Your task to perform on an android device: turn on the 24-hour format for clock Image 0: 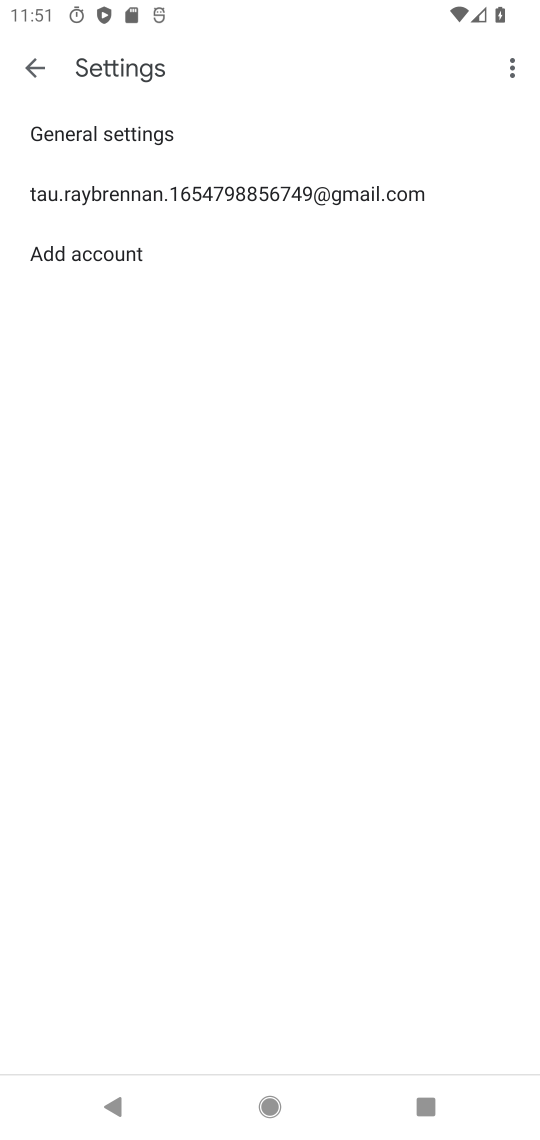
Step 0: press home button
Your task to perform on an android device: turn on the 24-hour format for clock Image 1: 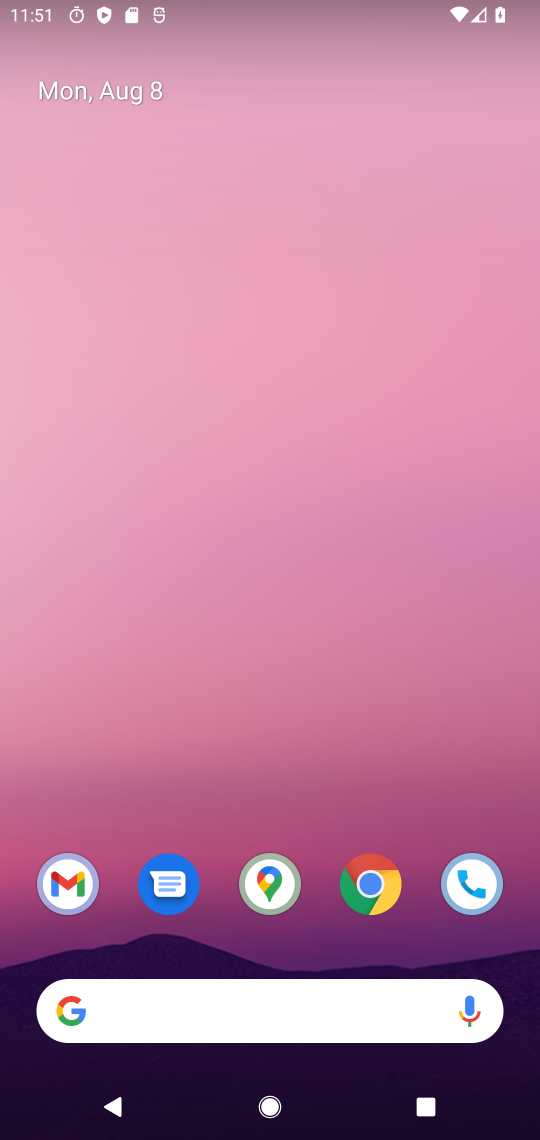
Step 1: drag from (258, 807) to (290, 191)
Your task to perform on an android device: turn on the 24-hour format for clock Image 2: 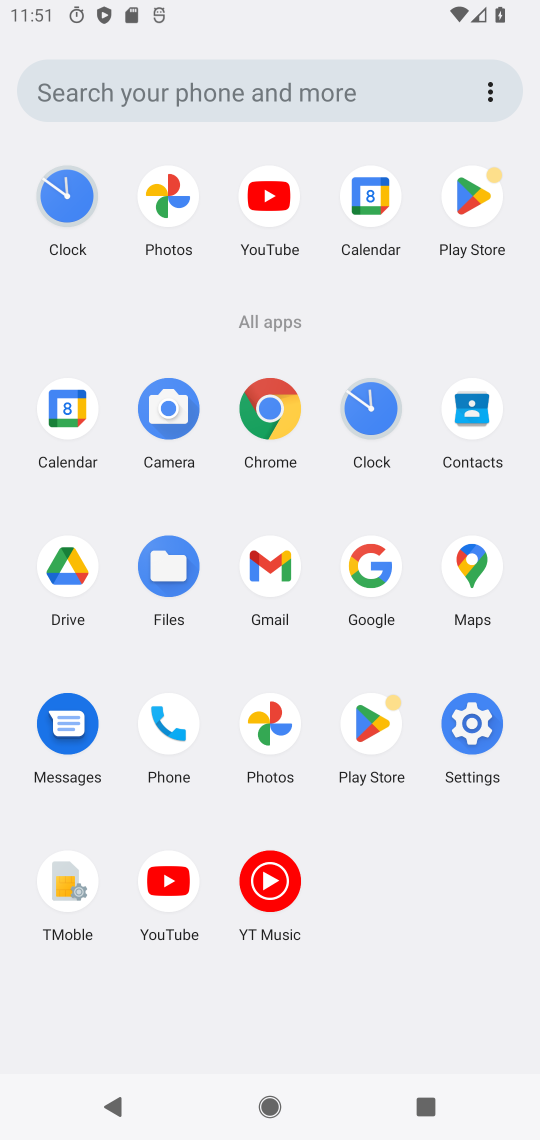
Step 2: click (376, 432)
Your task to perform on an android device: turn on the 24-hour format for clock Image 3: 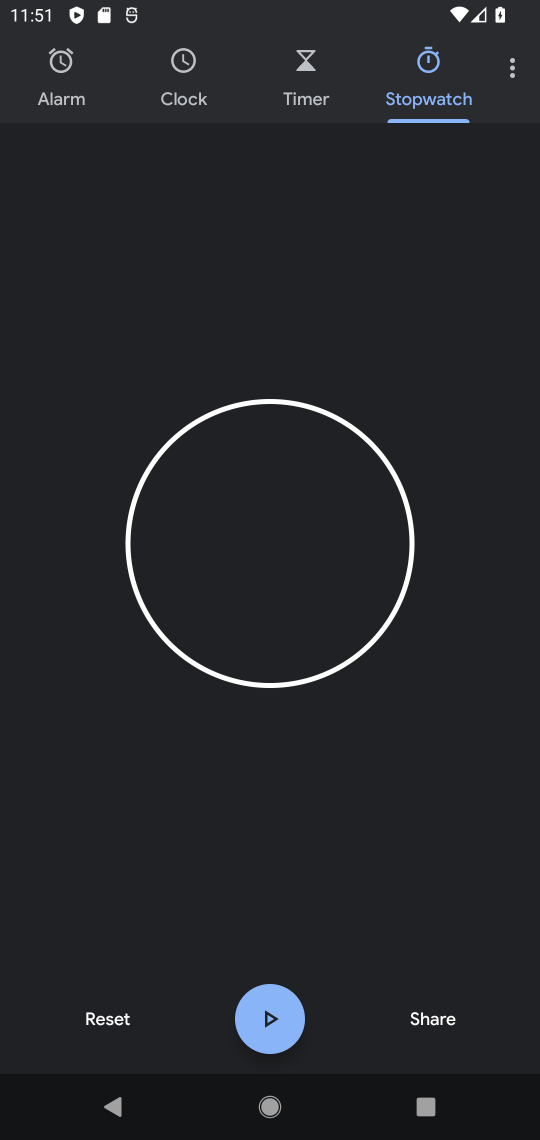
Step 3: click (509, 72)
Your task to perform on an android device: turn on the 24-hour format for clock Image 4: 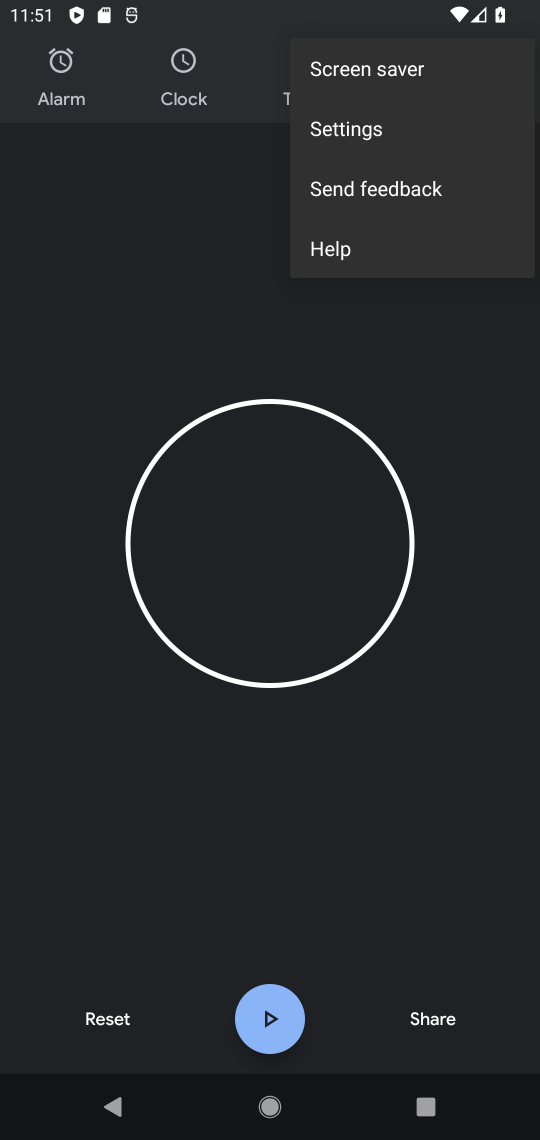
Step 4: click (378, 132)
Your task to perform on an android device: turn on the 24-hour format for clock Image 5: 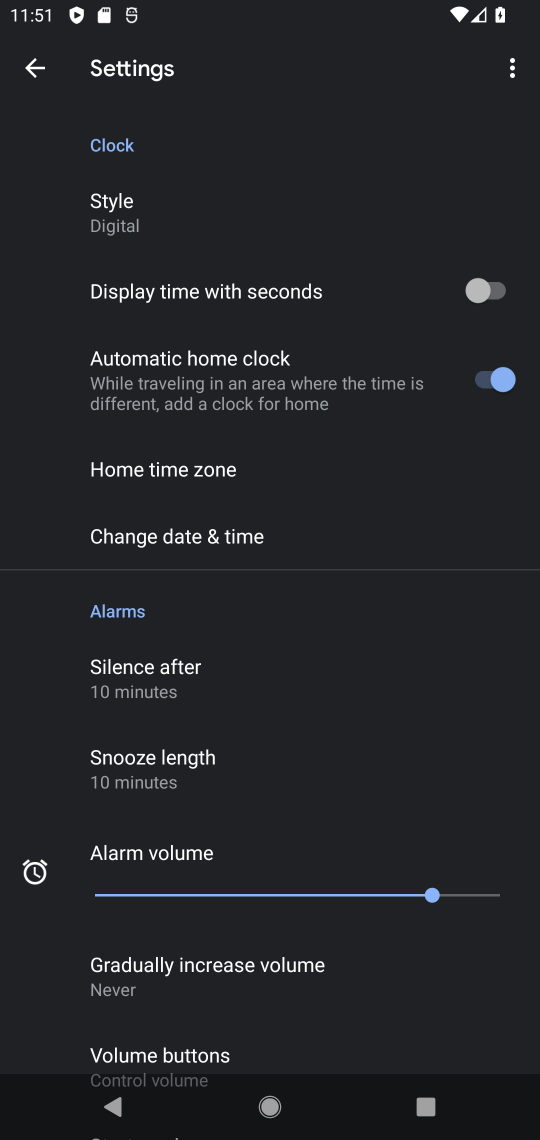
Step 5: click (235, 544)
Your task to perform on an android device: turn on the 24-hour format for clock Image 6: 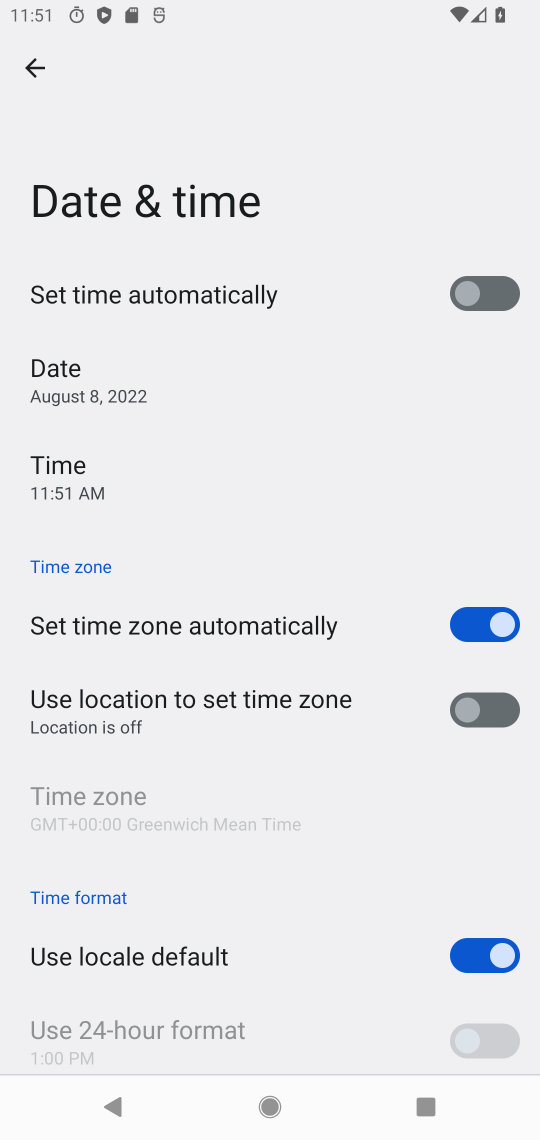
Step 6: click (470, 954)
Your task to perform on an android device: turn on the 24-hour format for clock Image 7: 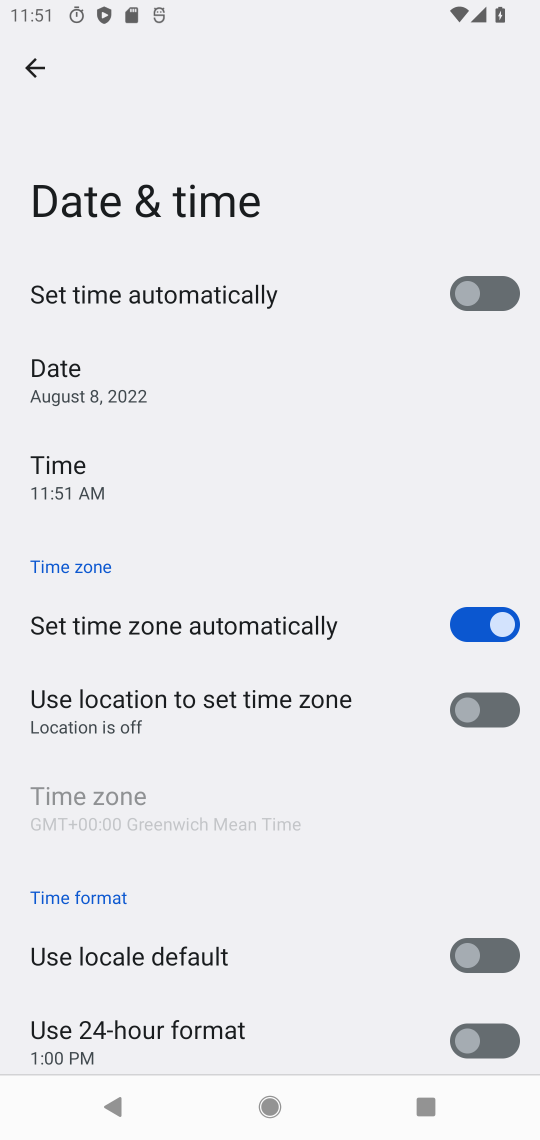
Step 7: click (498, 1040)
Your task to perform on an android device: turn on the 24-hour format for clock Image 8: 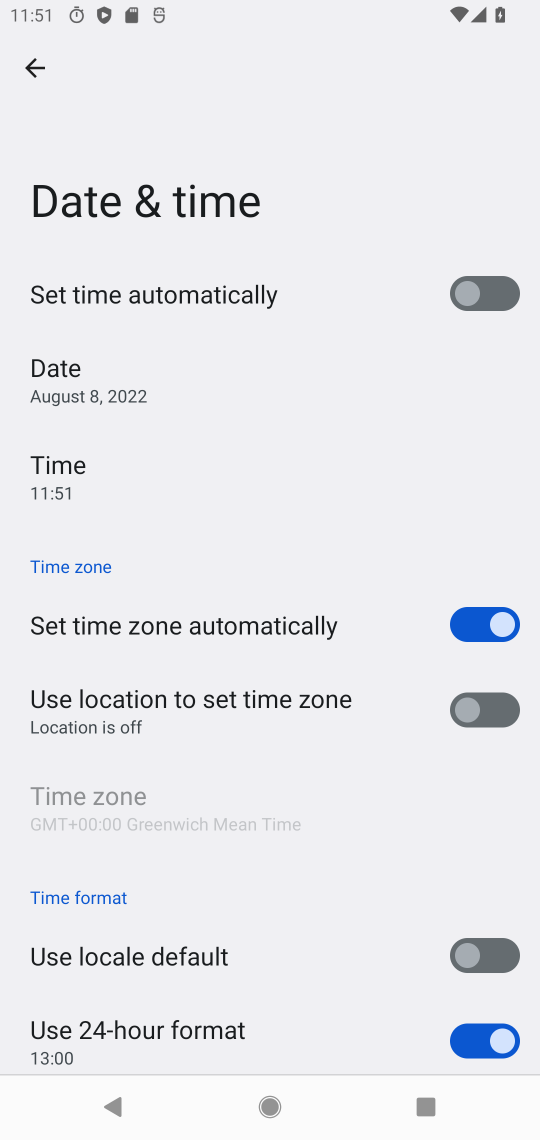
Step 8: task complete